Your task to perform on an android device: empty trash in google photos Image 0: 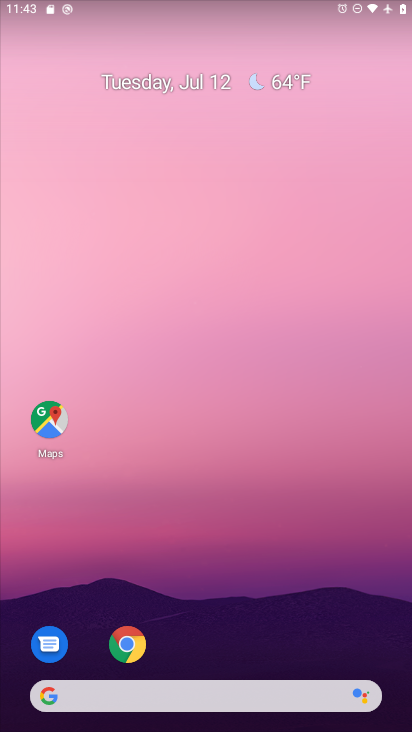
Step 0: drag from (325, 634) to (306, 94)
Your task to perform on an android device: empty trash in google photos Image 1: 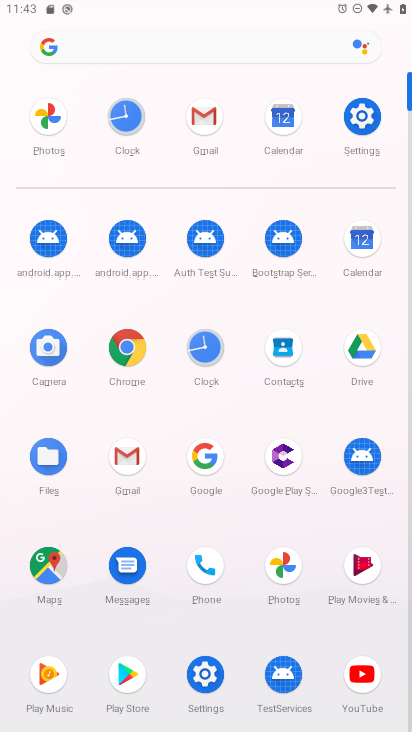
Step 1: click (276, 584)
Your task to perform on an android device: empty trash in google photos Image 2: 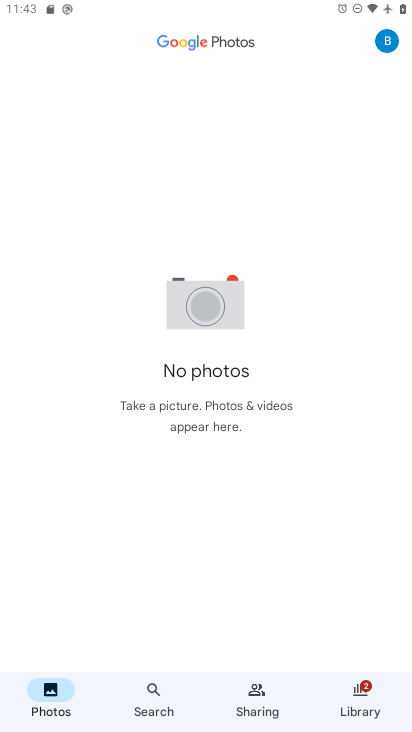
Step 2: task complete